Your task to perform on an android device: Search for sushi restaurants on Maps Image 0: 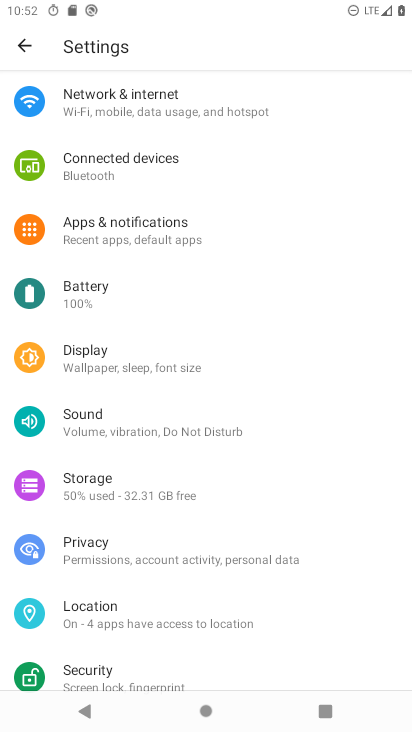
Step 0: drag from (339, 666) to (326, 301)
Your task to perform on an android device: Search for sushi restaurants on Maps Image 1: 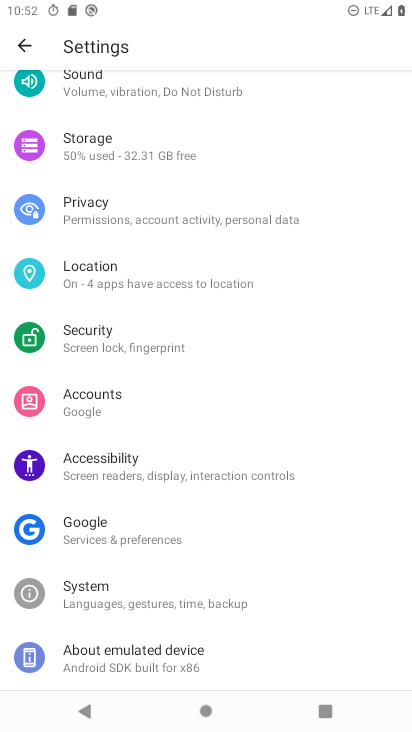
Step 1: drag from (352, 658) to (352, 352)
Your task to perform on an android device: Search for sushi restaurants on Maps Image 2: 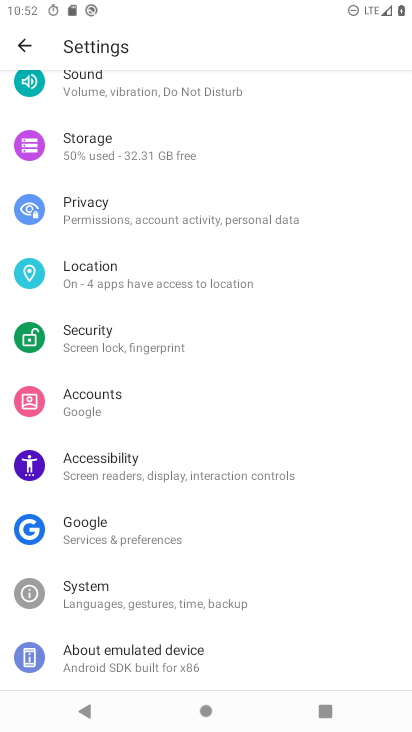
Step 2: press home button
Your task to perform on an android device: Search for sushi restaurants on Maps Image 3: 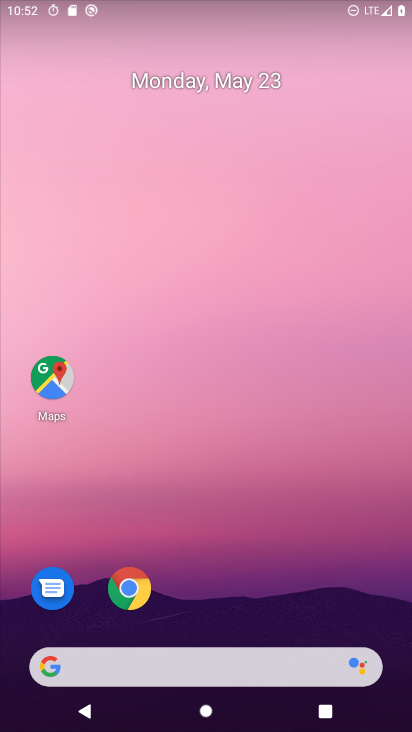
Step 3: click (57, 367)
Your task to perform on an android device: Search for sushi restaurants on Maps Image 4: 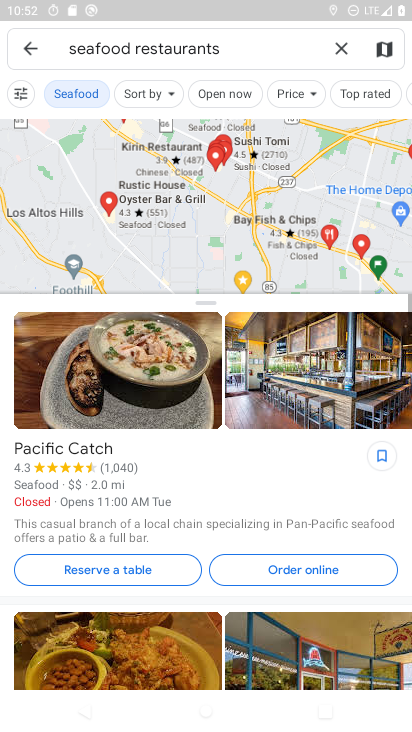
Step 4: click (345, 47)
Your task to perform on an android device: Search for sushi restaurants on Maps Image 5: 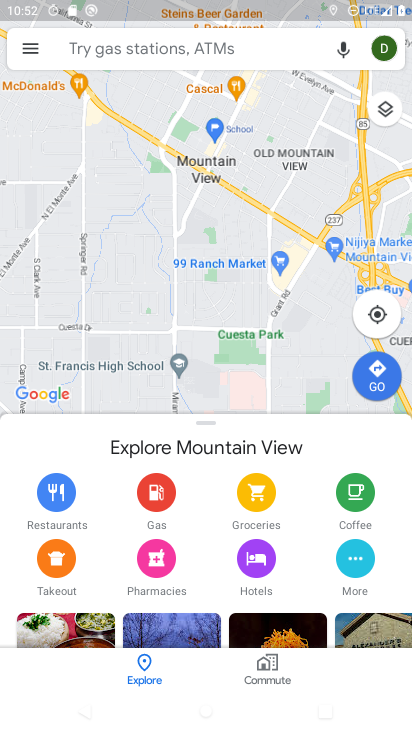
Step 5: type "sushi restaurants"
Your task to perform on an android device: Search for sushi restaurants on Maps Image 6: 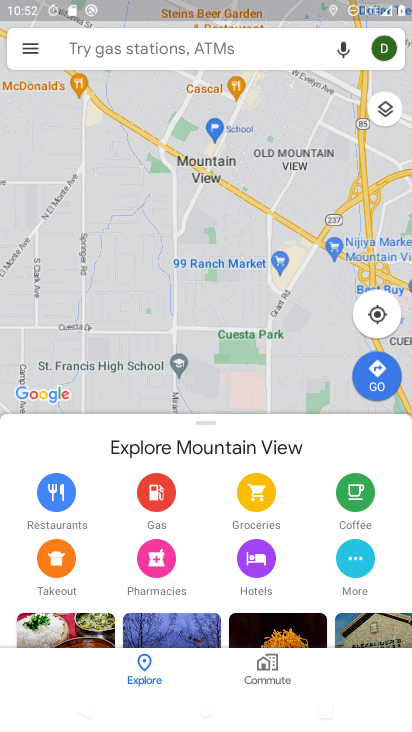
Step 6: click (77, 34)
Your task to perform on an android device: Search for sushi restaurants on Maps Image 7: 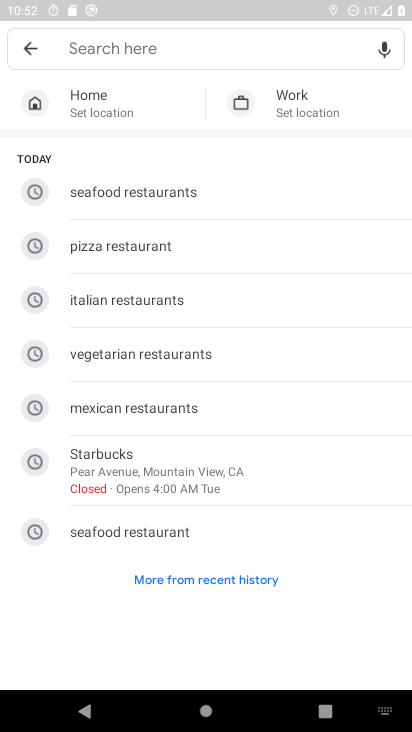
Step 7: type "sushi restaurants"
Your task to perform on an android device: Search for sushi restaurants on Maps Image 8: 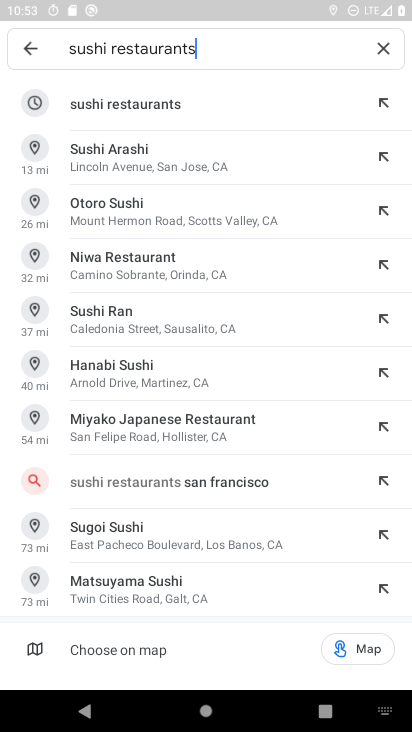
Step 8: click (145, 101)
Your task to perform on an android device: Search for sushi restaurants on Maps Image 9: 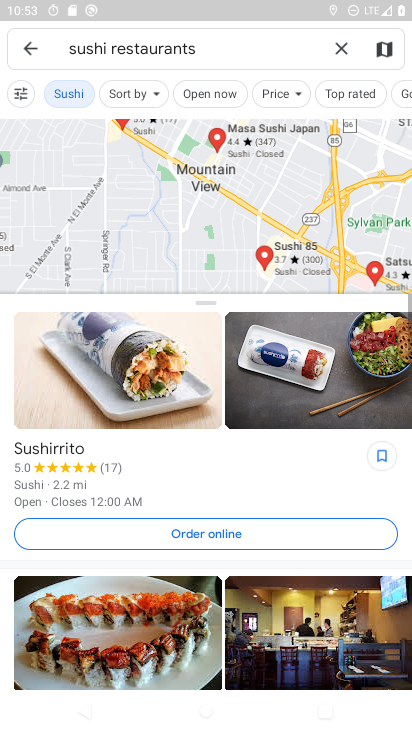
Step 9: task complete